Your task to perform on an android device: turn off notifications settings in the gmail app Image 0: 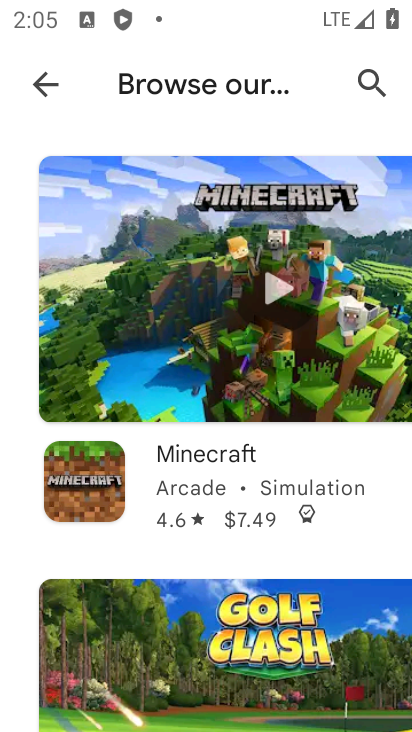
Step 0: press home button
Your task to perform on an android device: turn off notifications settings in the gmail app Image 1: 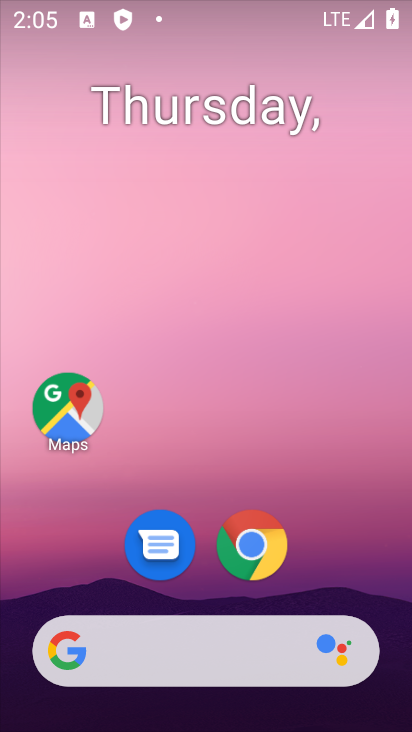
Step 1: drag from (265, 661) to (260, 0)
Your task to perform on an android device: turn off notifications settings in the gmail app Image 2: 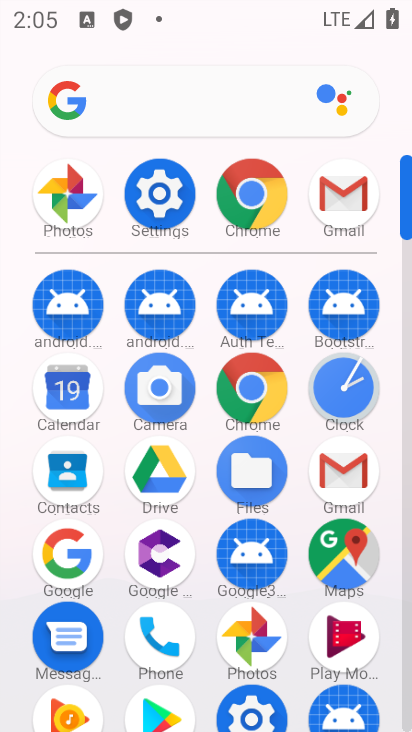
Step 2: click (341, 472)
Your task to perform on an android device: turn off notifications settings in the gmail app Image 3: 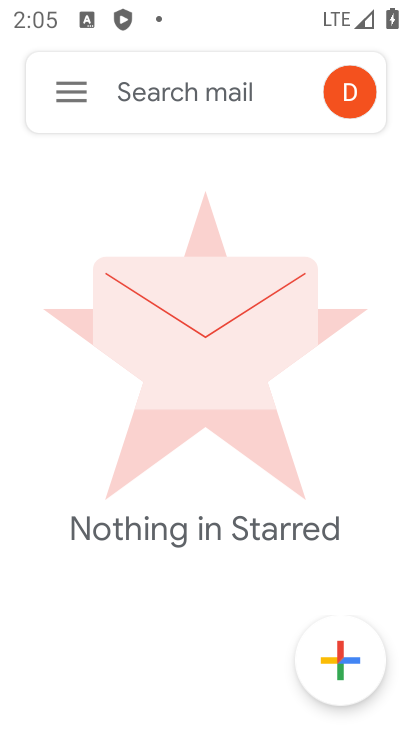
Step 3: click (67, 92)
Your task to perform on an android device: turn off notifications settings in the gmail app Image 4: 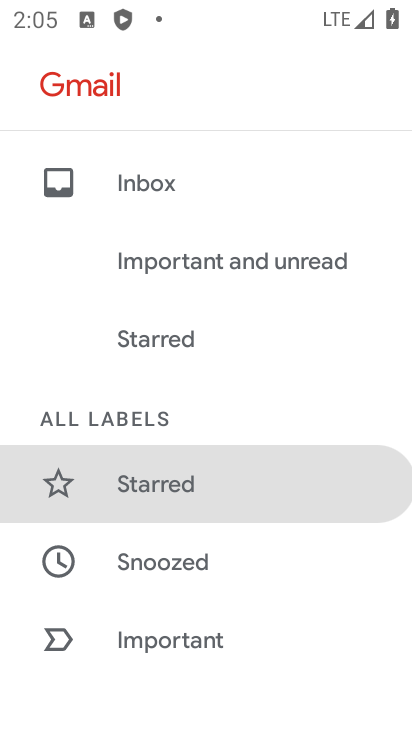
Step 4: drag from (213, 539) to (283, 2)
Your task to perform on an android device: turn off notifications settings in the gmail app Image 5: 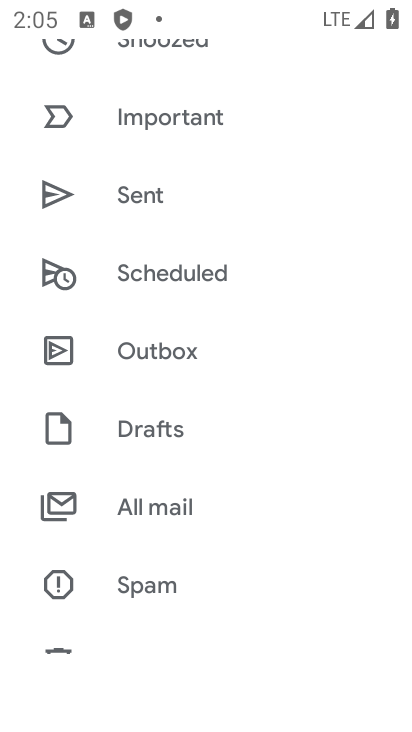
Step 5: drag from (229, 590) to (158, 4)
Your task to perform on an android device: turn off notifications settings in the gmail app Image 6: 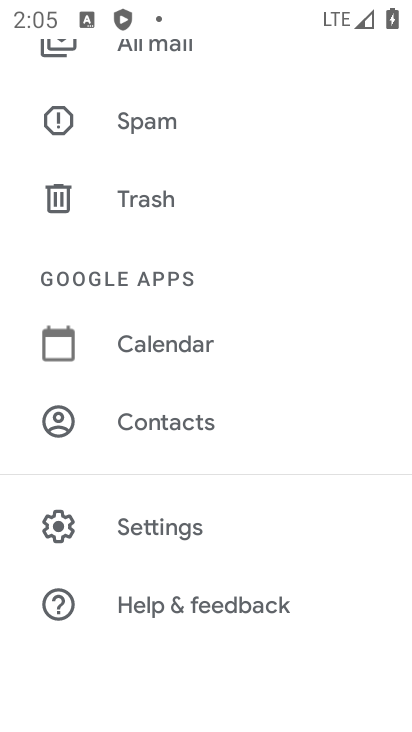
Step 6: click (202, 545)
Your task to perform on an android device: turn off notifications settings in the gmail app Image 7: 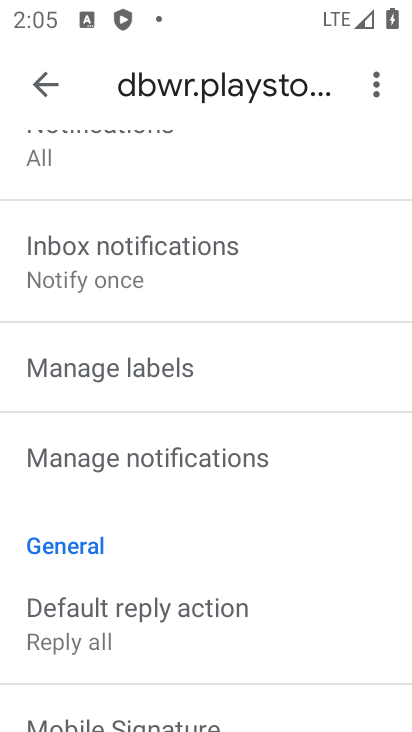
Step 7: click (204, 446)
Your task to perform on an android device: turn off notifications settings in the gmail app Image 8: 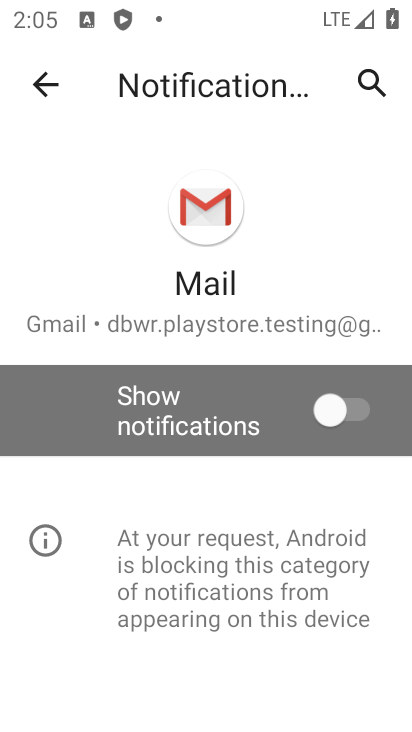
Step 8: task complete